Your task to perform on an android device: turn pop-ups off in chrome Image 0: 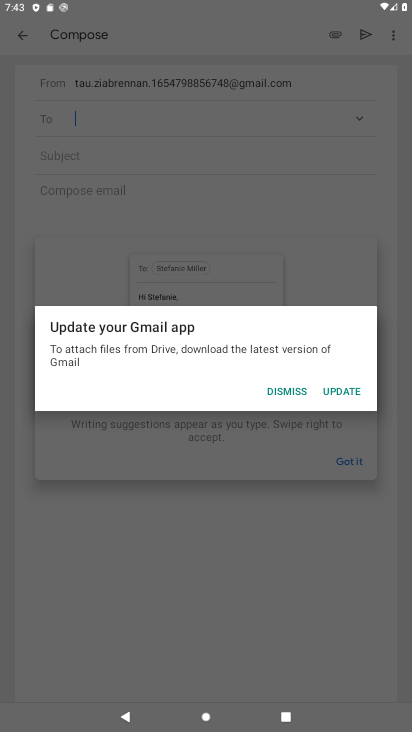
Step 0: click (283, 386)
Your task to perform on an android device: turn pop-ups off in chrome Image 1: 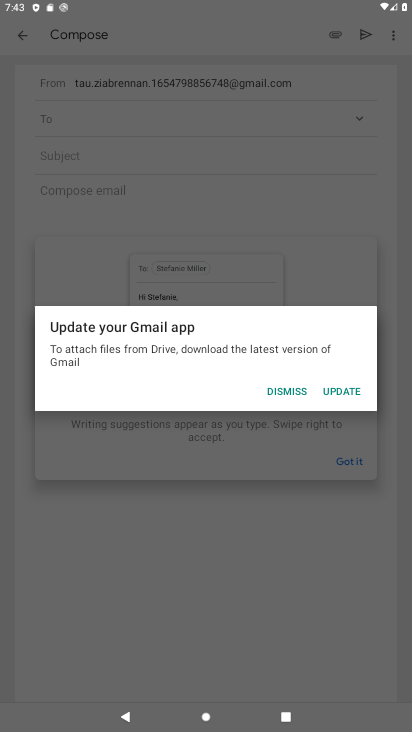
Step 1: click (284, 386)
Your task to perform on an android device: turn pop-ups off in chrome Image 2: 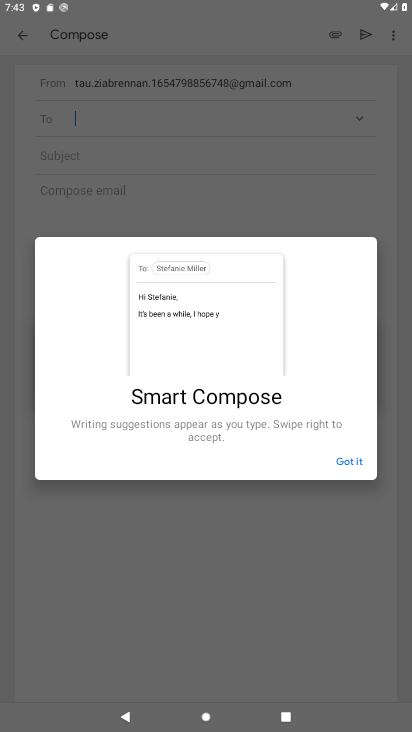
Step 2: click (289, 389)
Your task to perform on an android device: turn pop-ups off in chrome Image 3: 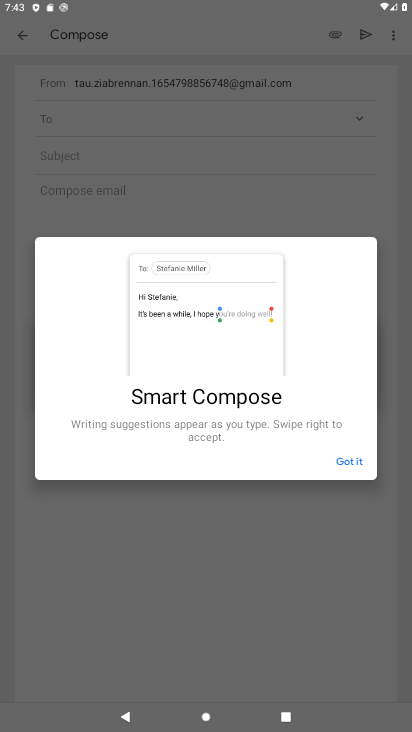
Step 3: click (284, 396)
Your task to perform on an android device: turn pop-ups off in chrome Image 4: 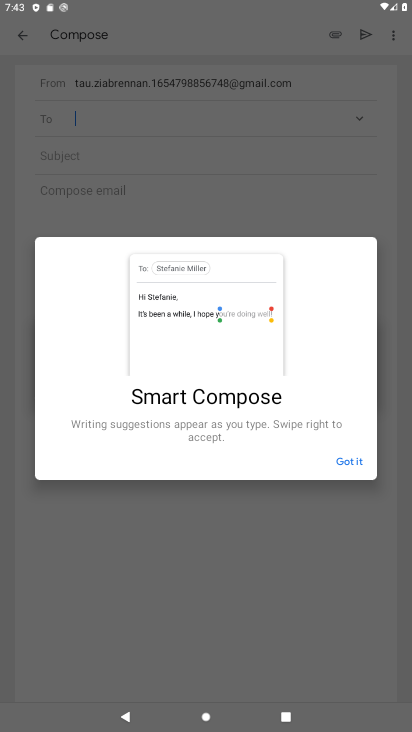
Step 4: click (353, 465)
Your task to perform on an android device: turn pop-ups off in chrome Image 5: 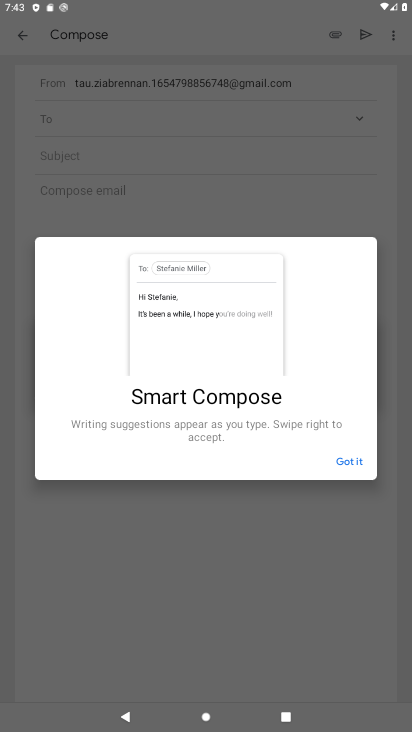
Step 5: click (353, 461)
Your task to perform on an android device: turn pop-ups off in chrome Image 6: 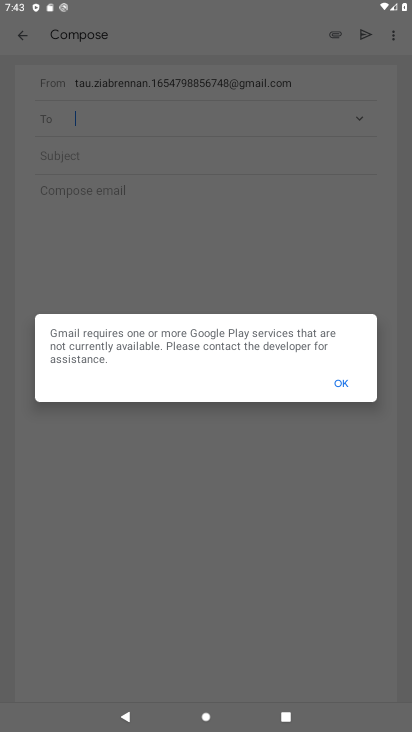
Step 6: click (353, 457)
Your task to perform on an android device: turn pop-ups off in chrome Image 7: 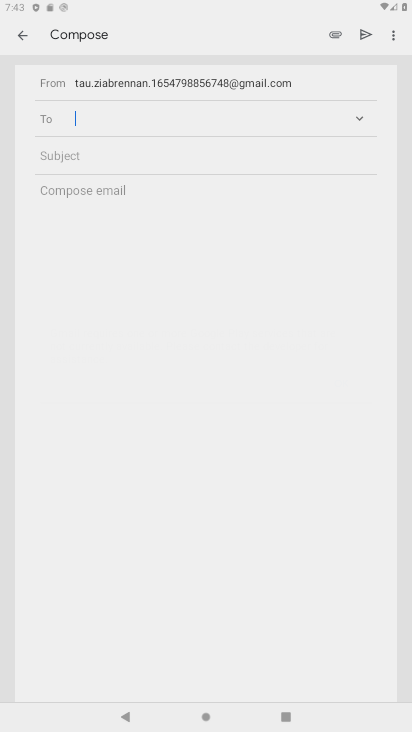
Step 7: click (354, 458)
Your task to perform on an android device: turn pop-ups off in chrome Image 8: 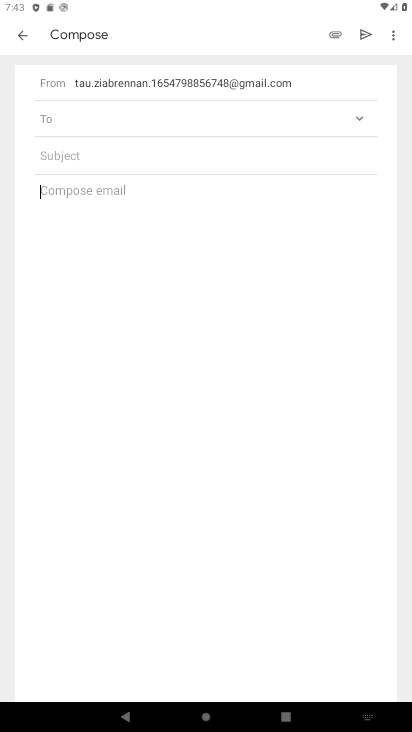
Step 8: click (22, 43)
Your task to perform on an android device: turn pop-ups off in chrome Image 9: 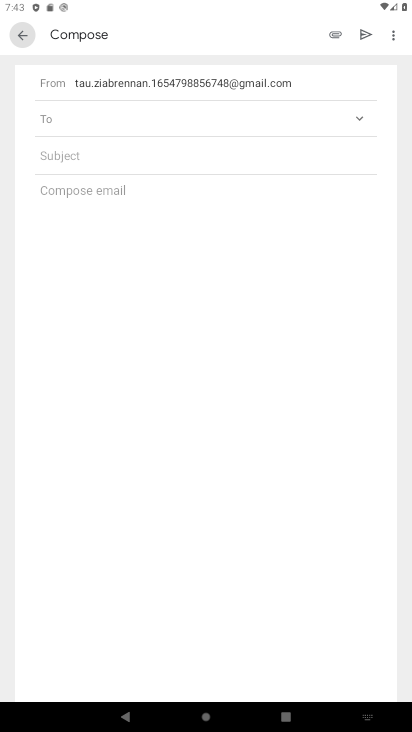
Step 9: click (47, 50)
Your task to perform on an android device: turn pop-ups off in chrome Image 10: 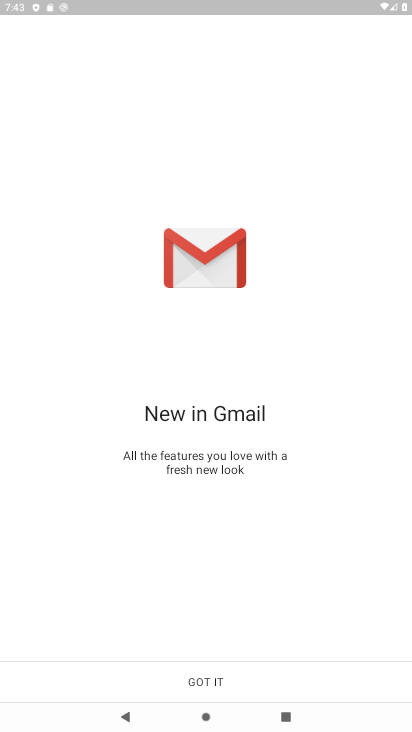
Step 10: click (204, 675)
Your task to perform on an android device: turn pop-ups off in chrome Image 11: 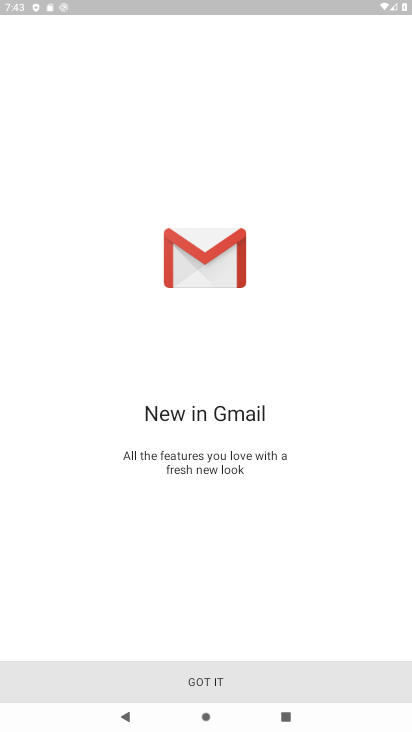
Step 11: click (208, 674)
Your task to perform on an android device: turn pop-ups off in chrome Image 12: 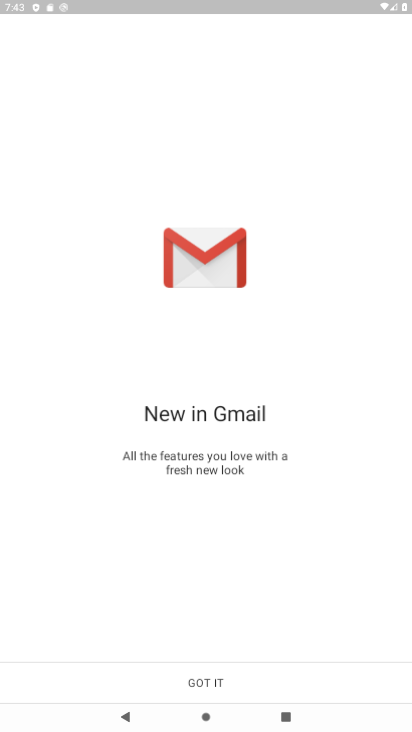
Step 12: click (211, 675)
Your task to perform on an android device: turn pop-ups off in chrome Image 13: 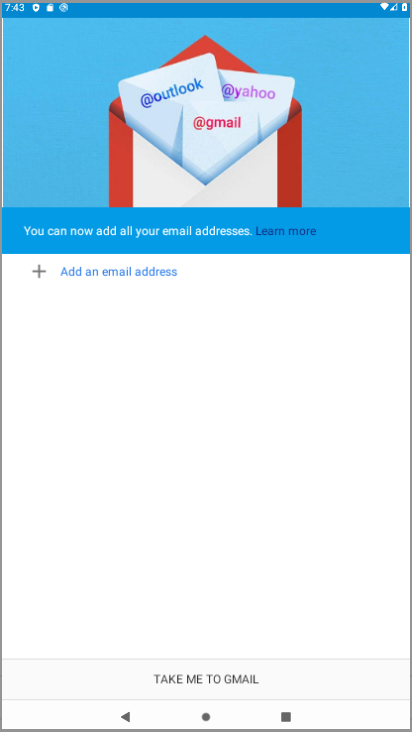
Step 13: click (212, 675)
Your task to perform on an android device: turn pop-ups off in chrome Image 14: 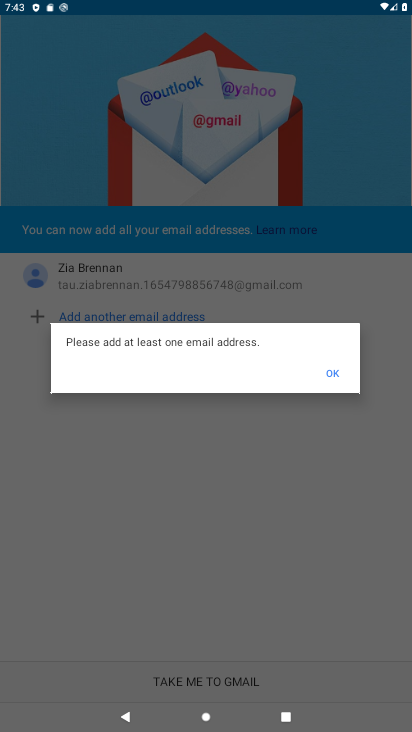
Step 14: click (336, 374)
Your task to perform on an android device: turn pop-ups off in chrome Image 15: 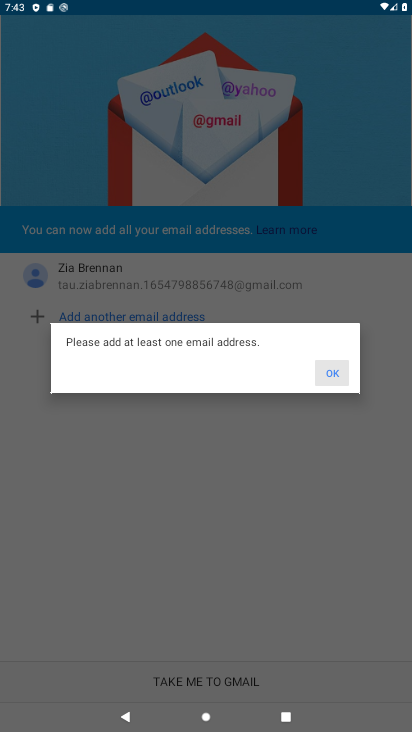
Step 15: click (342, 367)
Your task to perform on an android device: turn pop-ups off in chrome Image 16: 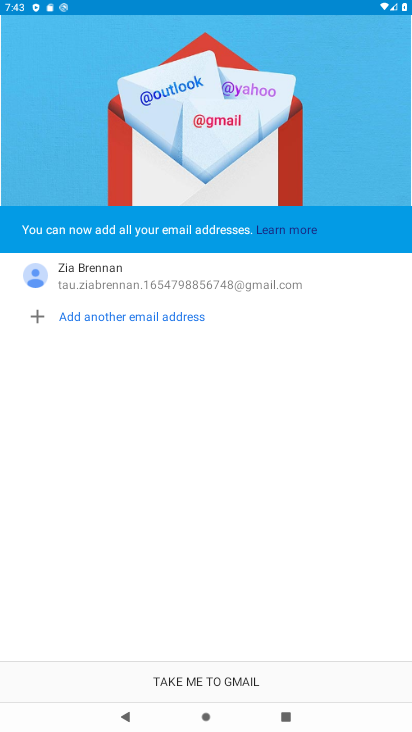
Step 16: click (217, 677)
Your task to perform on an android device: turn pop-ups off in chrome Image 17: 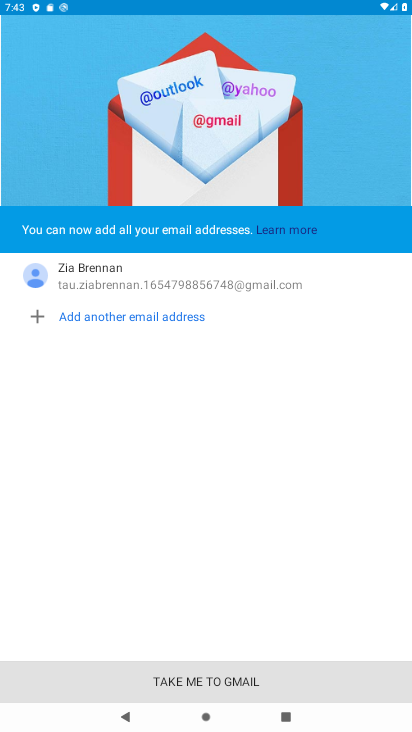
Step 17: click (216, 677)
Your task to perform on an android device: turn pop-ups off in chrome Image 18: 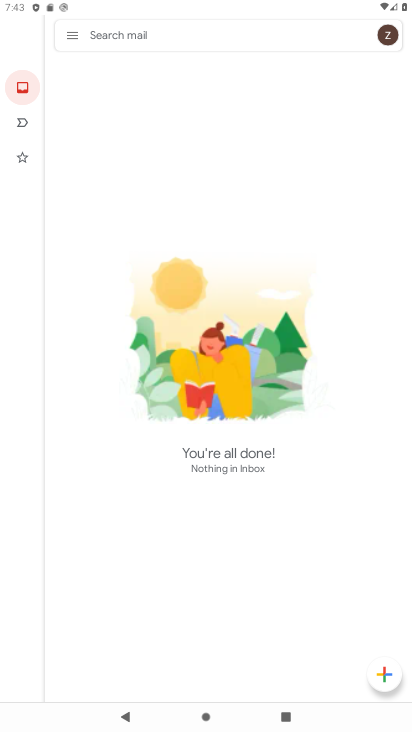
Step 18: press back button
Your task to perform on an android device: turn pop-ups off in chrome Image 19: 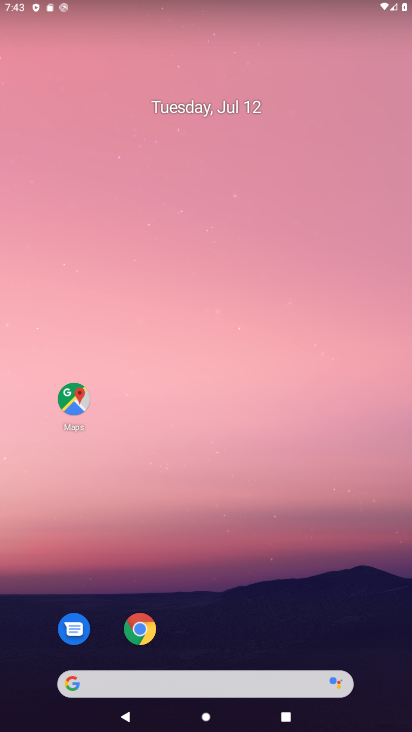
Step 19: drag from (223, 608) to (168, 31)
Your task to perform on an android device: turn pop-ups off in chrome Image 20: 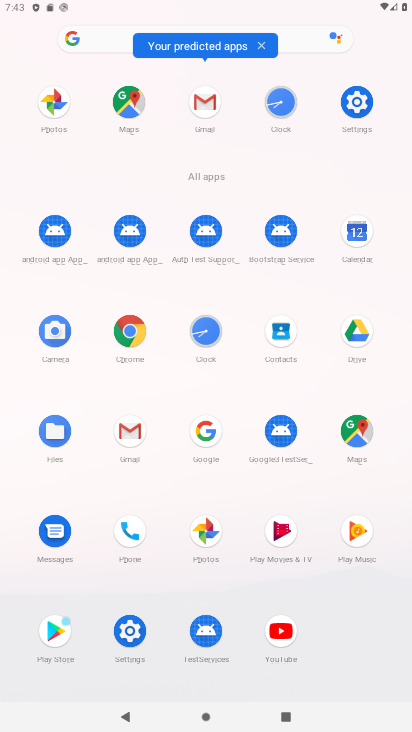
Step 20: click (130, 332)
Your task to perform on an android device: turn pop-ups off in chrome Image 21: 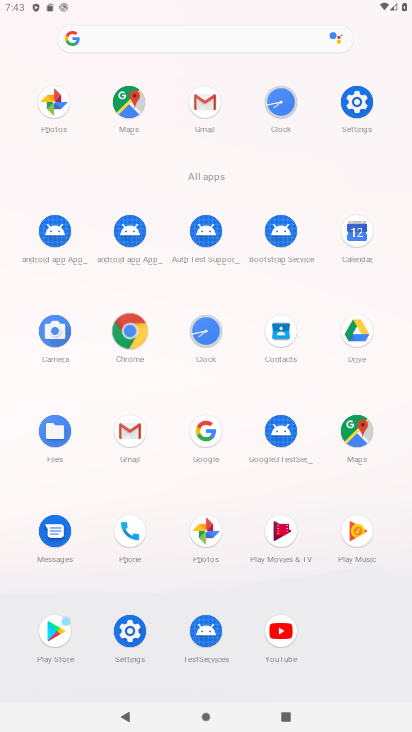
Step 21: click (130, 332)
Your task to perform on an android device: turn pop-ups off in chrome Image 22: 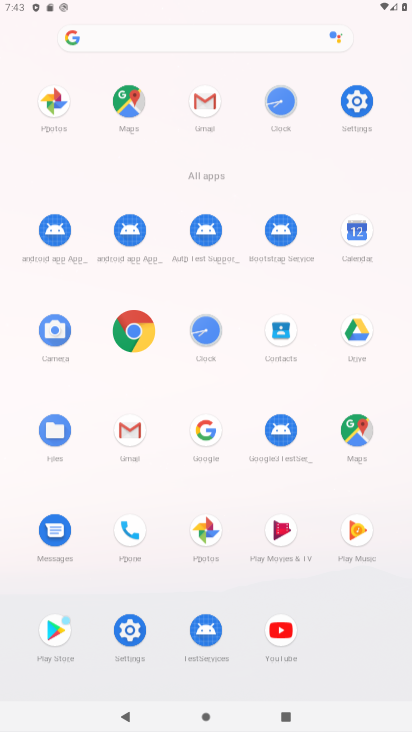
Step 22: click (134, 338)
Your task to perform on an android device: turn pop-ups off in chrome Image 23: 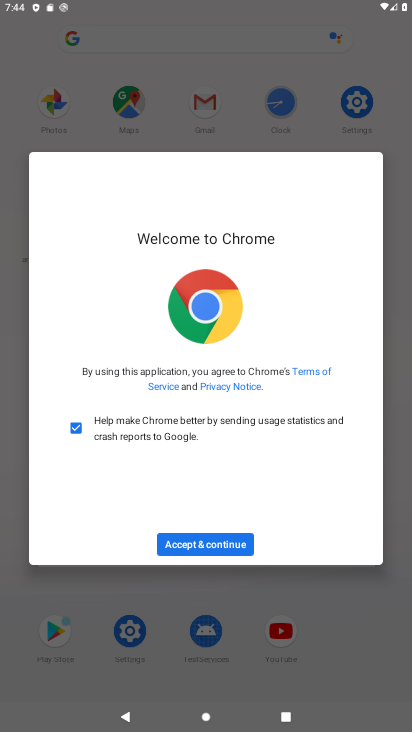
Step 23: click (226, 544)
Your task to perform on an android device: turn pop-ups off in chrome Image 24: 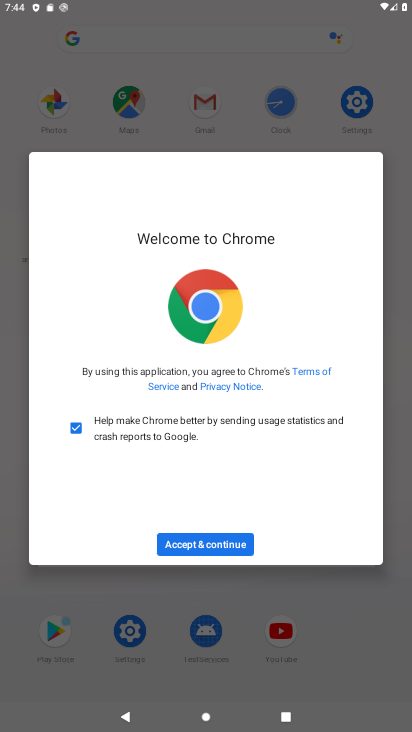
Step 24: click (226, 544)
Your task to perform on an android device: turn pop-ups off in chrome Image 25: 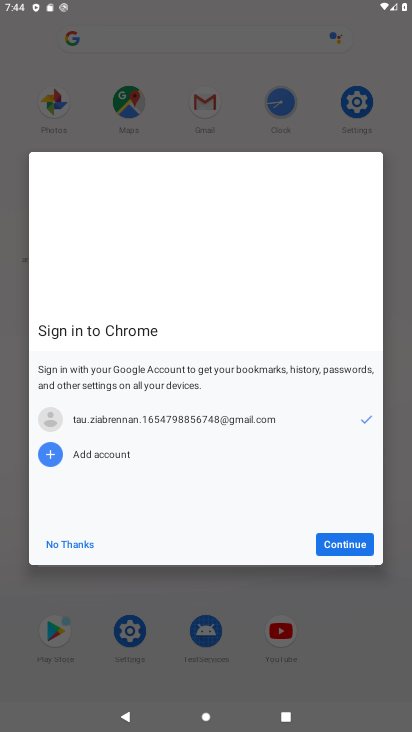
Step 25: click (227, 540)
Your task to perform on an android device: turn pop-ups off in chrome Image 26: 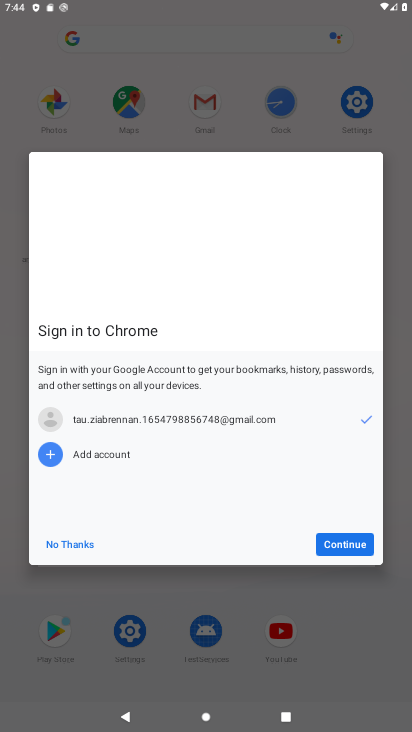
Step 26: click (227, 537)
Your task to perform on an android device: turn pop-ups off in chrome Image 27: 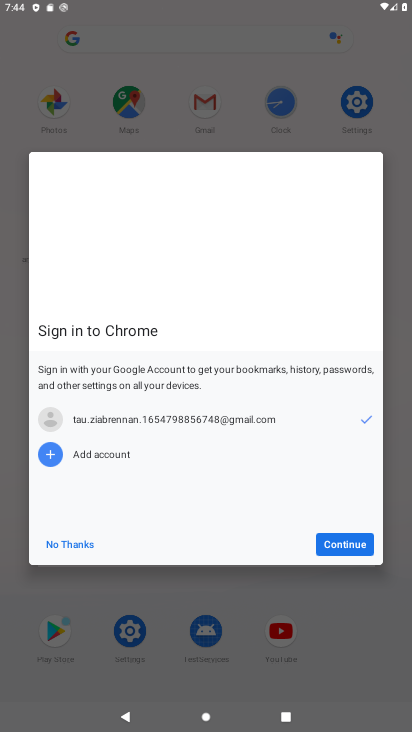
Step 27: click (347, 541)
Your task to perform on an android device: turn pop-ups off in chrome Image 28: 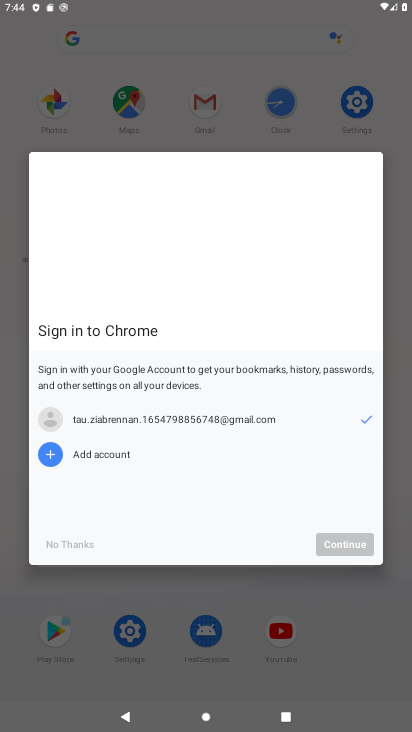
Step 28: click (346, 542)
Your task to perform on an android device: turn pop-ups off in chrome Image 29: 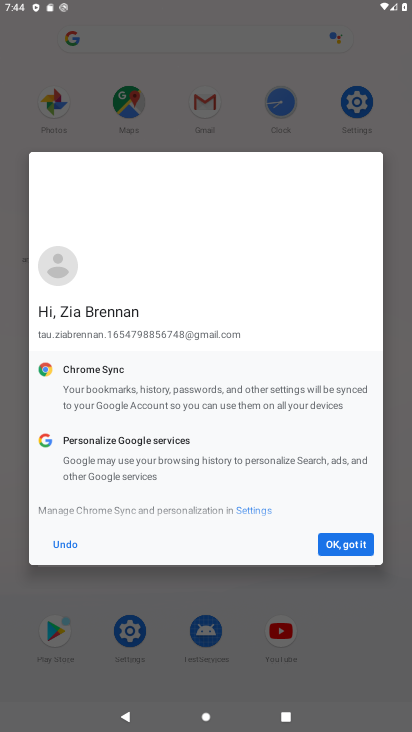
Step 29: click (346, 542)
Your task to perform on an android device: turn pop-ups off in chrome Image 30: 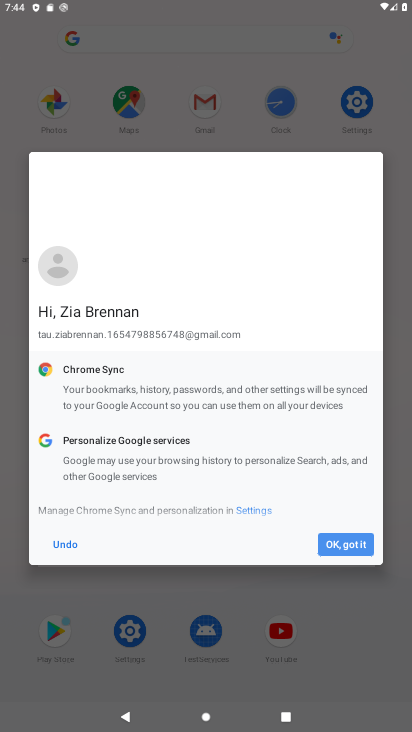
Step 30: click (346, 542)
Your task to perform on an android device: turn pop-ups off in chrome Image 31: 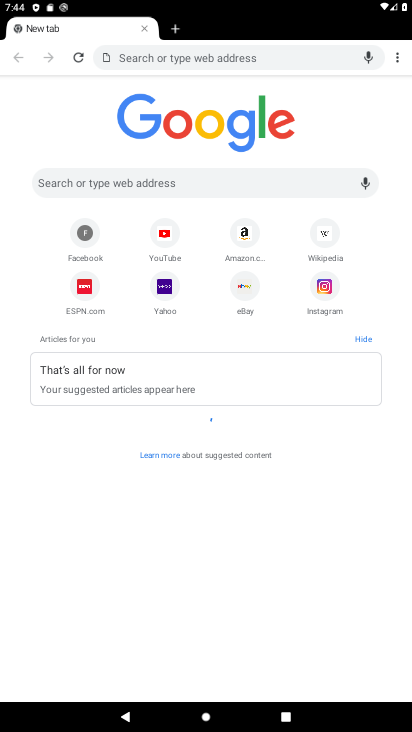
Step 31: drag from (399, 59) to (274, 257)
Your task to perform on an android device: turn pop-ups off in chrome Image 32: 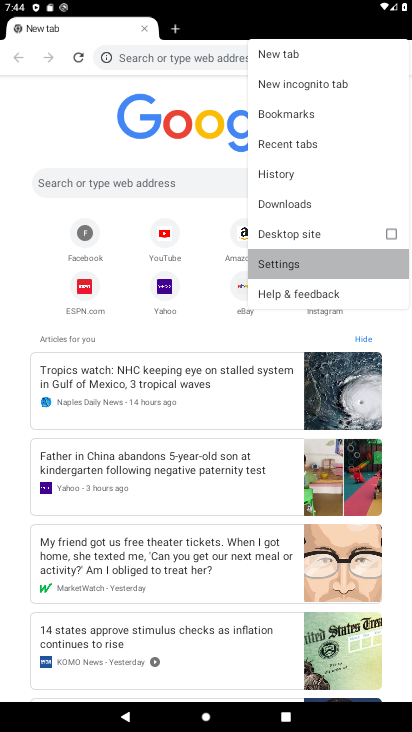
Step 32: click (272, 254)
Your task to perform on an android device: turn pop-ups off in chrome Image 33: 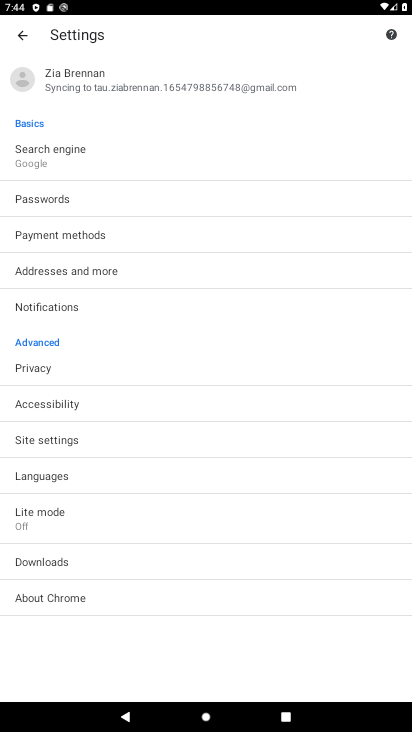
Step 33: click (30, 508)
Your task to perform on an android device: turn pop-ups off in chrome Image 34: 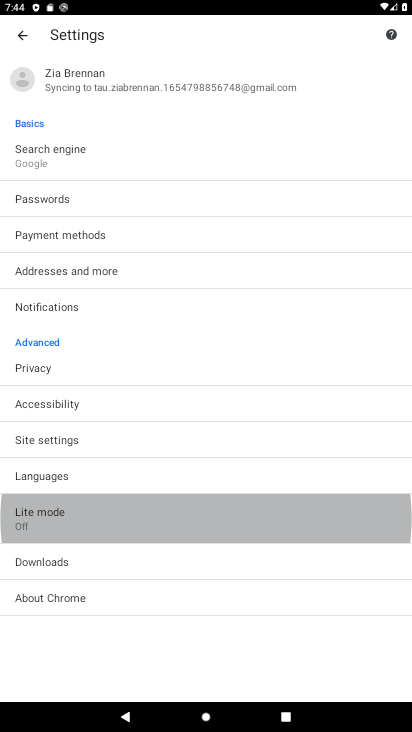
Step 34: click (29, 509)
Your task to perform on an android device: turn pop-ups off in chrome Image 35: 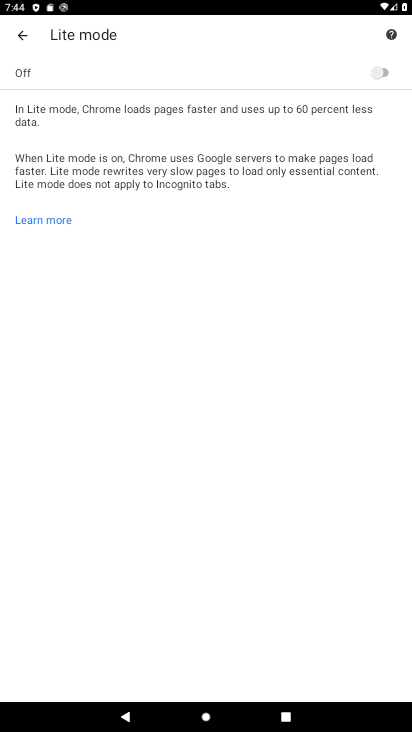
Step 35: click (19, 42)
Your task to perform on an android device: turn pop-ups off in chrome Image 36: 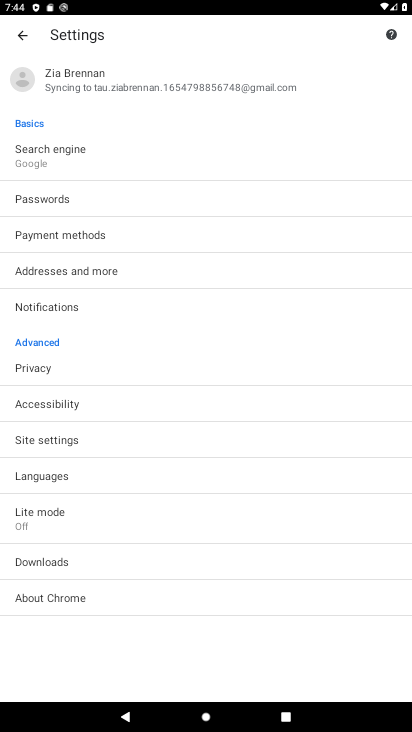
Step 36: click (27, 437)
Your task to perform on an android device: turn pop-ups off in chrome Image 37: 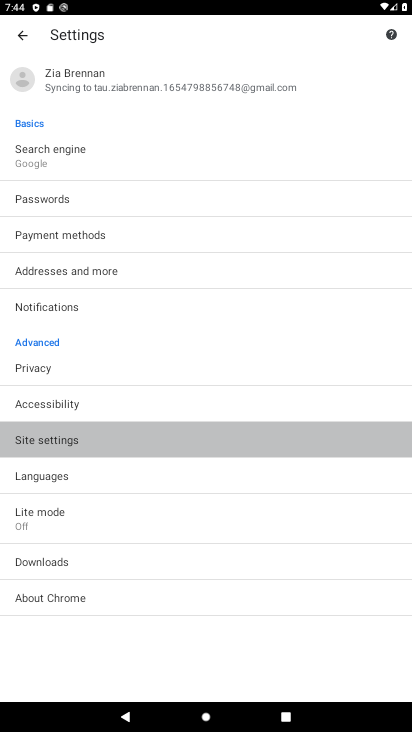
Step 37: click (30, 435)
Your task to perform on an android device: turn pop-ups off in chrome Image 38: 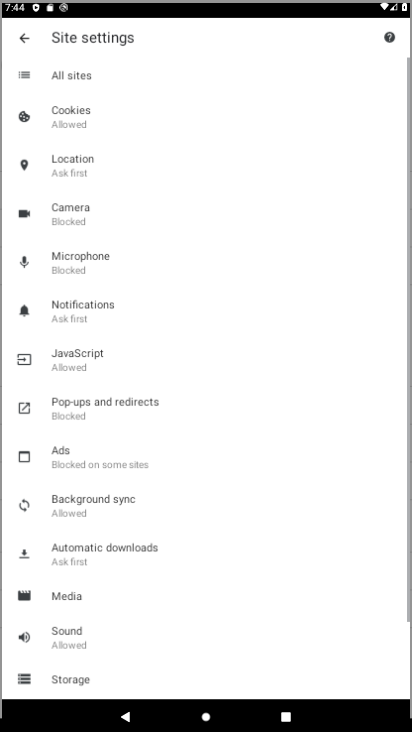
Step 38: click (31, 431)
Your task to perform on an android device: turn pop-ups off in chrome Image 39: 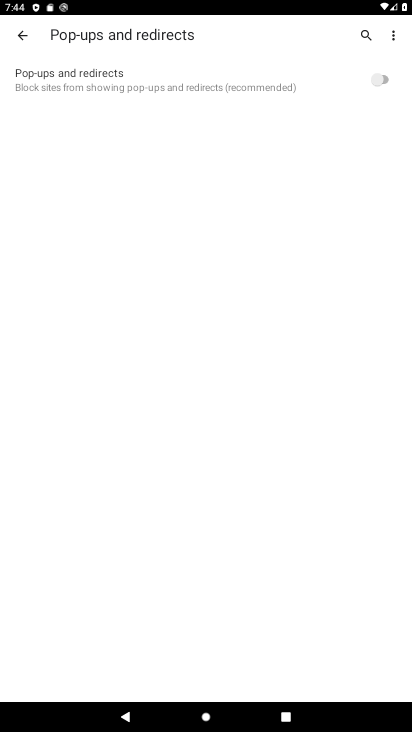
Step 39: task complete